Your task to perform on an android device: open a new tab in the chrome app Image 0: 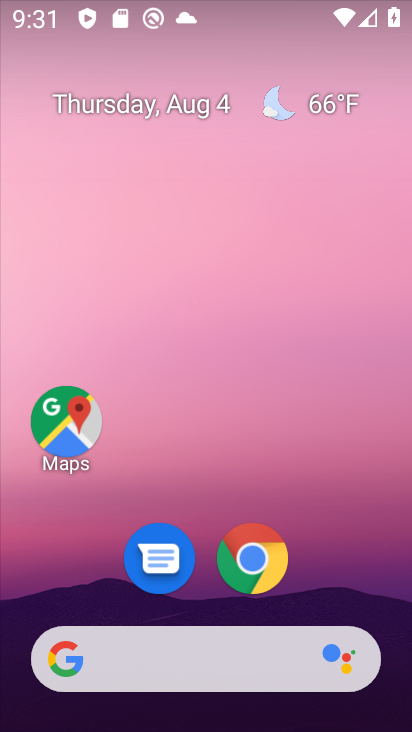
Step 0: drag from (374, 595) to (236, 116)
Your task to perform on an android device: open a new tab in the chrome app Image 1: 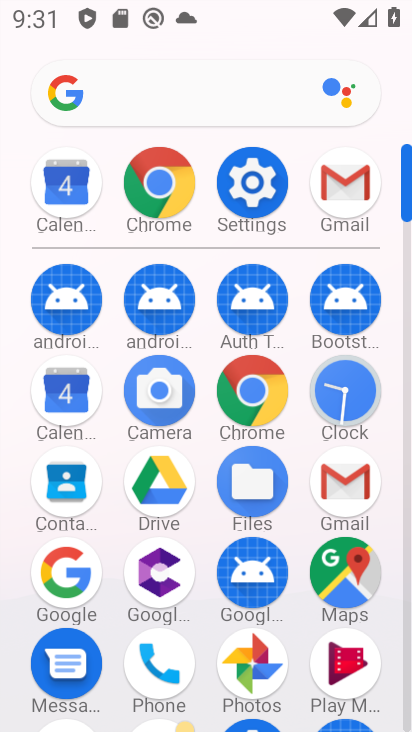
Step 1: click (249, 393)
Your task to perform on an android device: open a new tab in the chrome app Image 2: 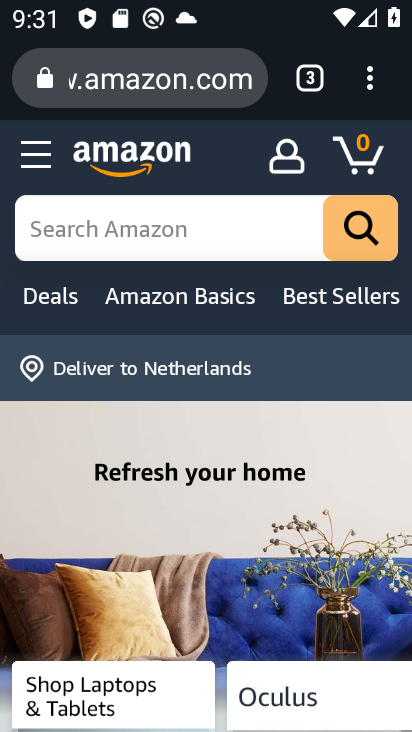
Step 2: task complete